Your task to perform on an android device: toggle javascript in the chrome app Image 0: 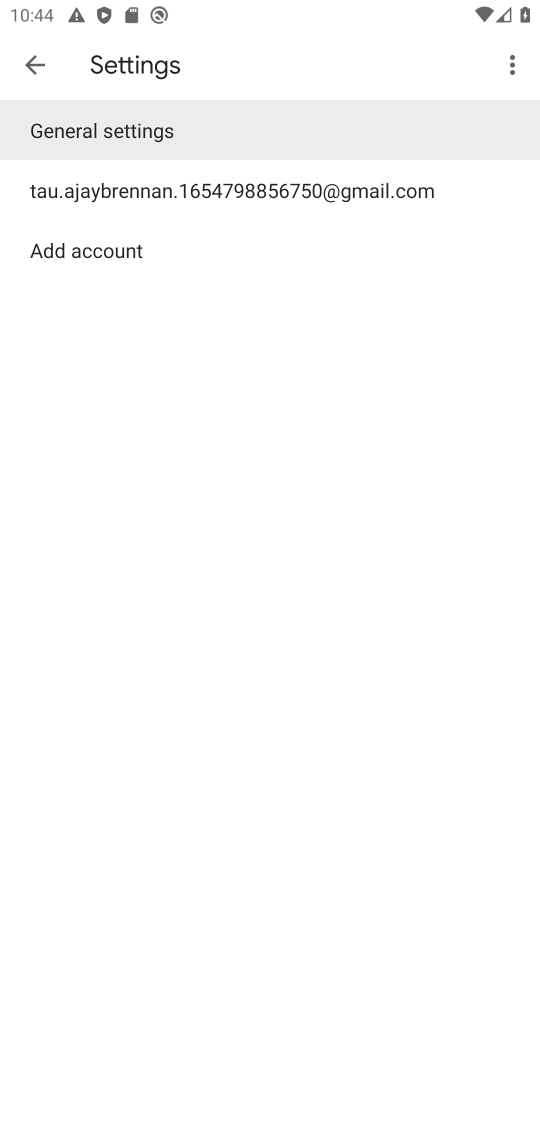
Step 0: press home button
Your task to perform on an android device: toggle javascript in the chrome app Image 1: 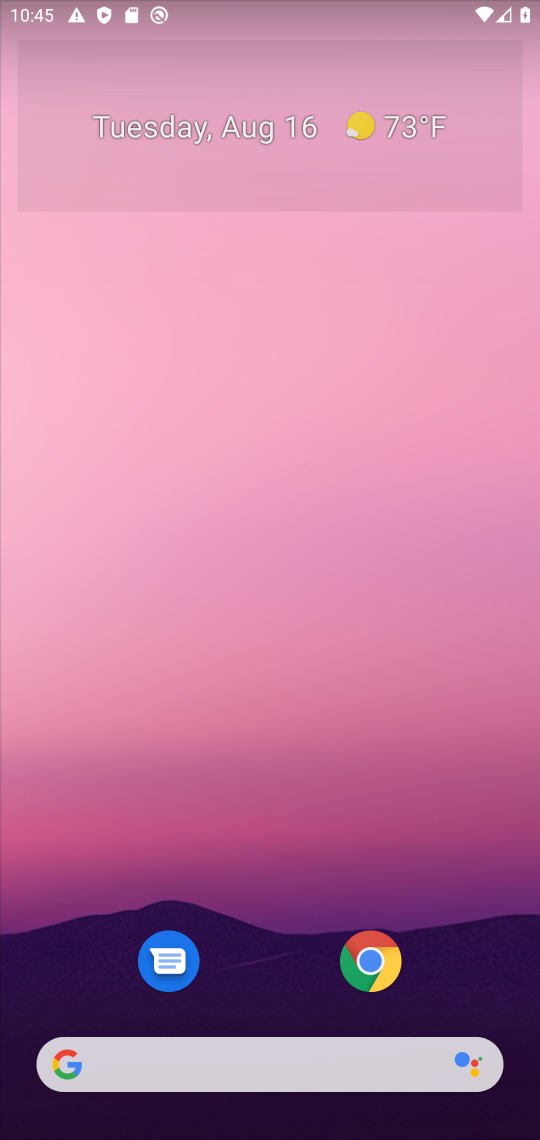
Step 1: click (356, 339)
Your task to perform on an android device: toggle javascript in the chrome app Image 2: 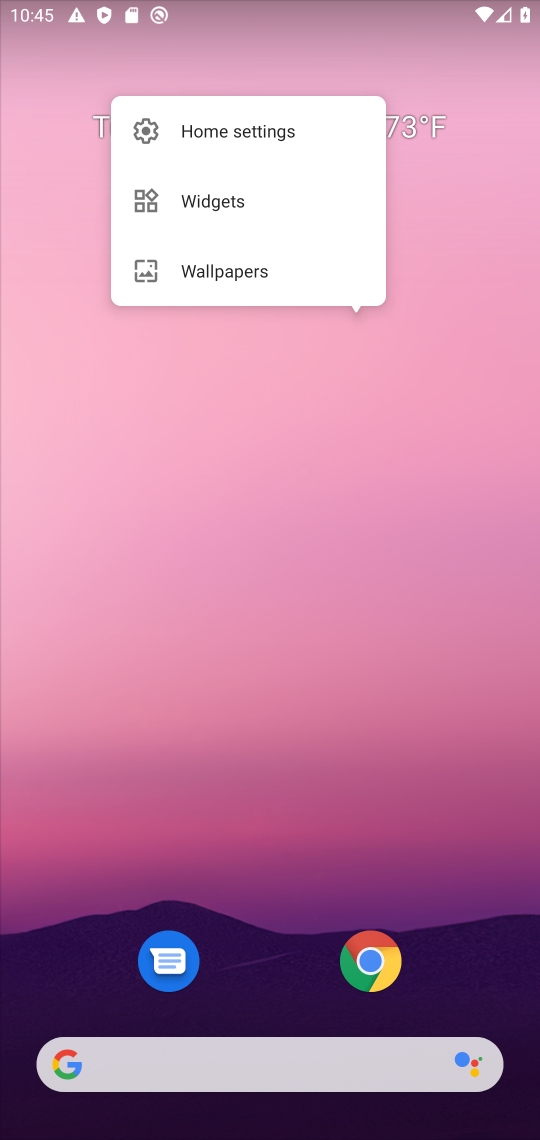
Step 2: task complete